Your task to perform on an android device: Check the weather Image 0: 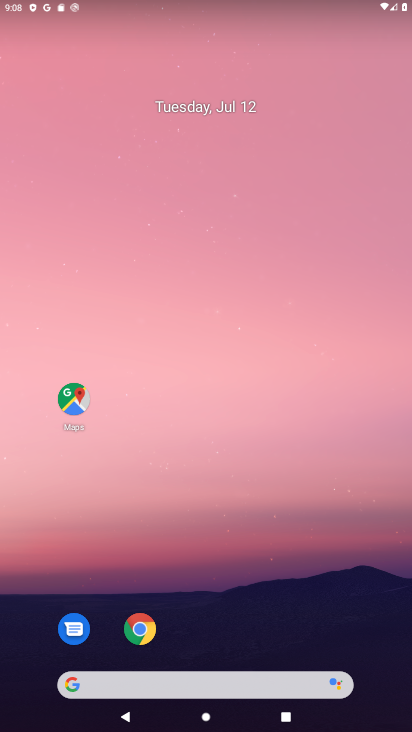
Step 0: click (215, 687)
Your task to perform on an android device: Check the weather Image 1: 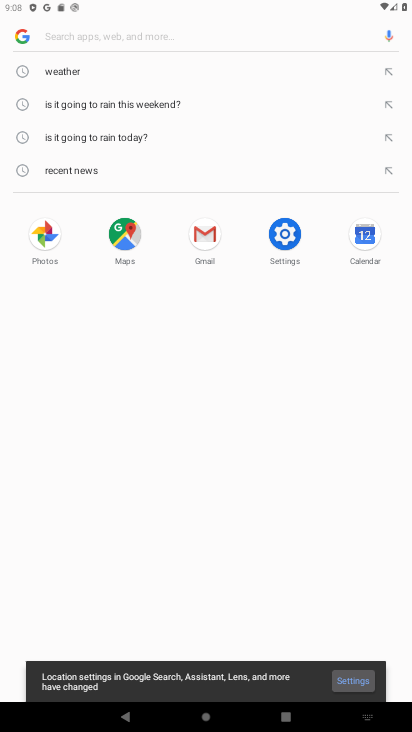
Step 1: click (162, 68)
Your task to perform on an android device: Check the weather Image 2: 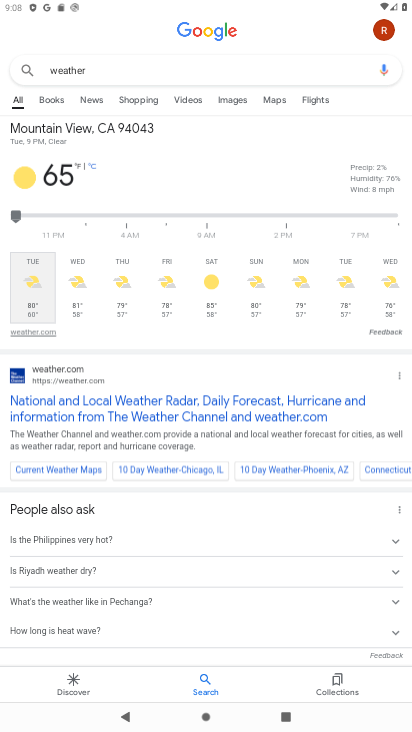
Step 2: task complete